Your task to perform on an android device: Open network settings Image 0: 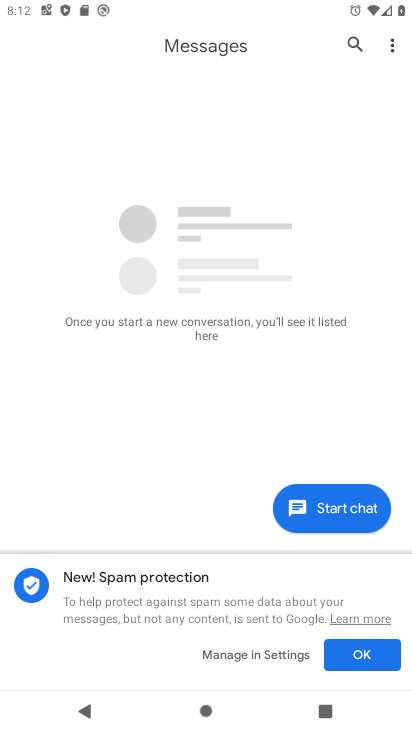
Step 0: press home button
Your task to perform on an android device: Open network settings Image 1: 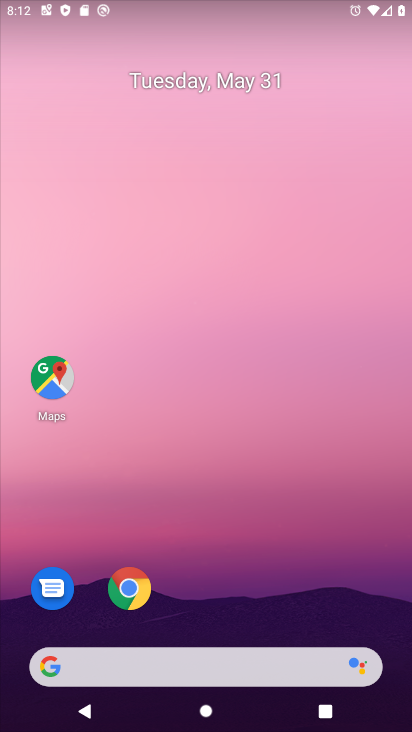
Step 1: click (243, 65)
Your task to perform on an android device: Open network settings Image 2: 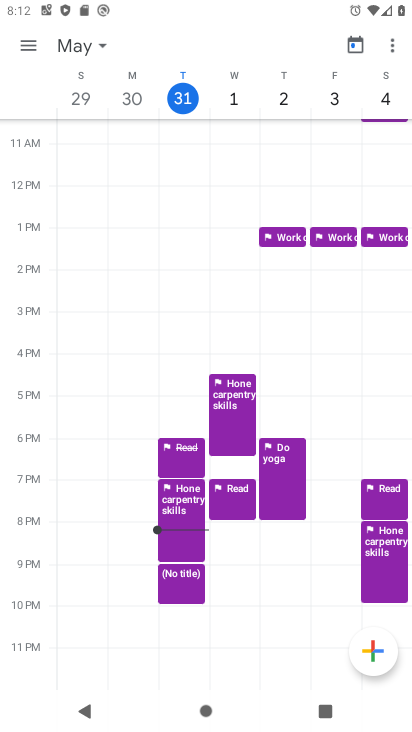
Step 2: press home button
Your task to perform on an android device: Open network settings Image 3: 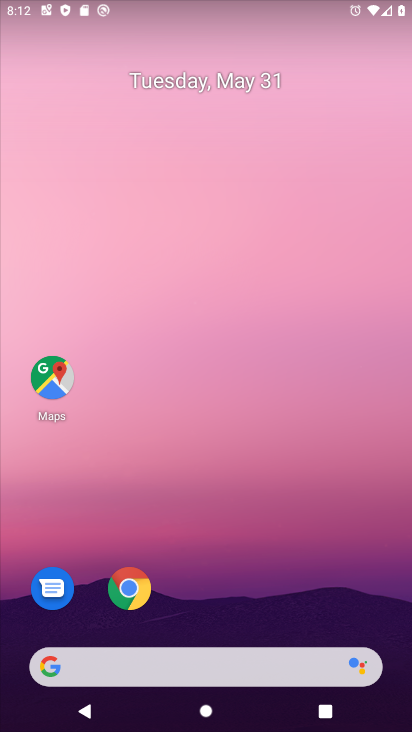
Step 3: drag from (207, 585) to (218, 0)
Your task to perform on an android device: Open network settings Image 4: 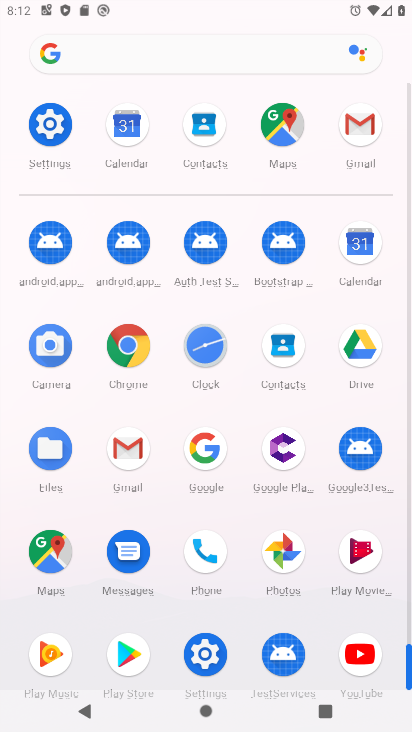
Step 4: click (67, 147)
Your task to perform on an android device: Open network settings Image 5: 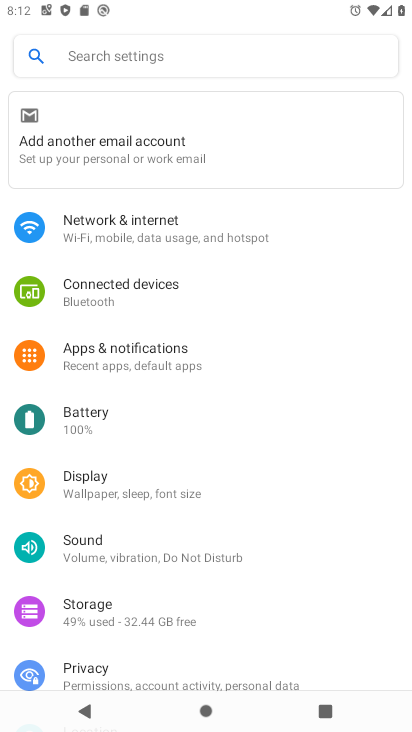
Step 5: click (157, 235)
Your task to perform on an android device: Open network settings Image 6: 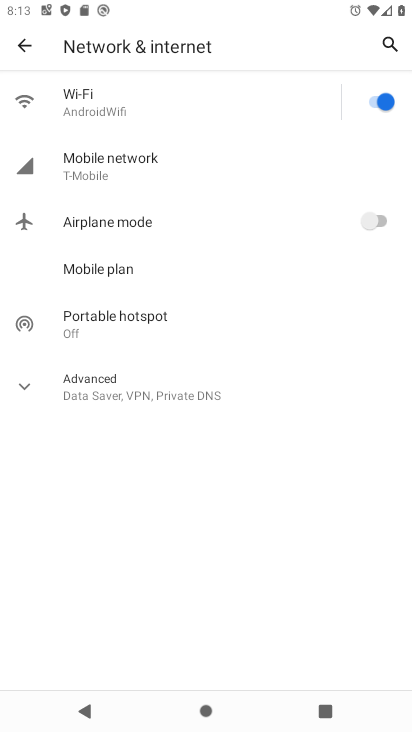
Step 6: click (134, 163)
Your task to perform on an android device: Open network settings Image 7: 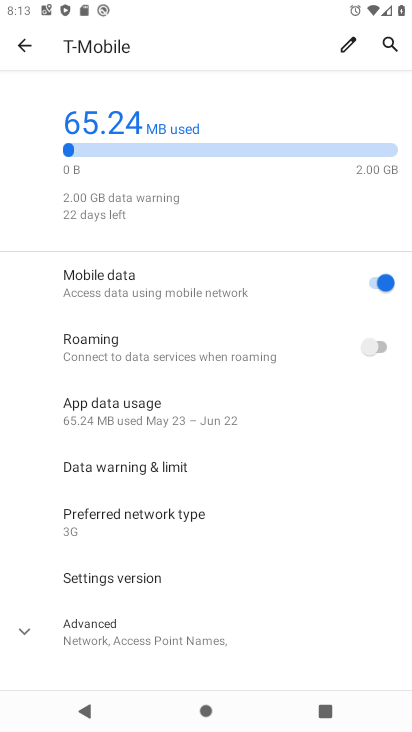
Step 7: task complete